Your task to perform on an android device: toggle location history Image 0: 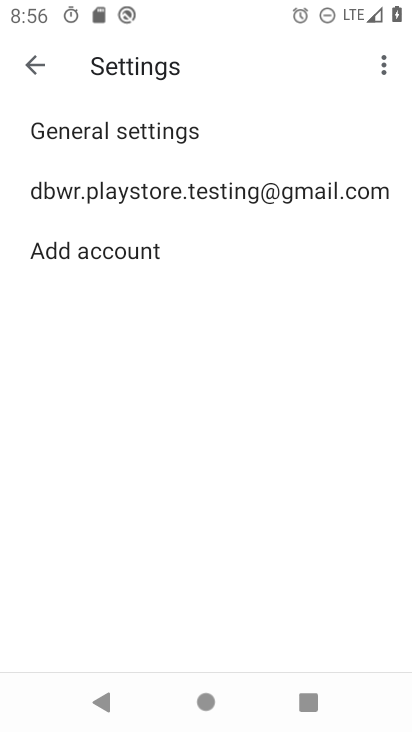
Step 0: press home button
Your task to perform on an android device: toggle location history Image 1: 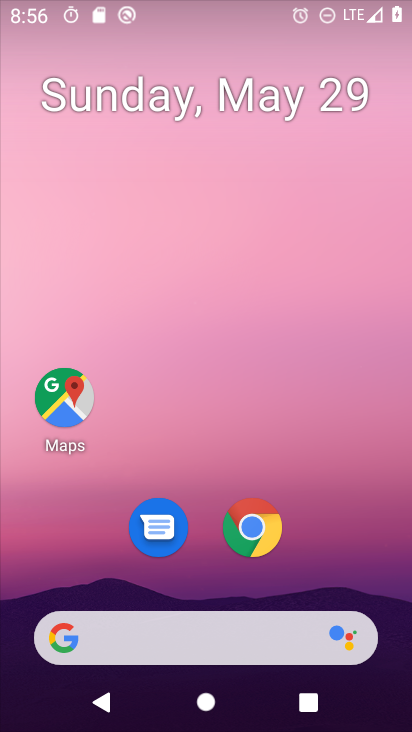
Step 1: drag from (388, 639) to (317, 2)
Your task to perform on an android device: toggle location history Image 2: 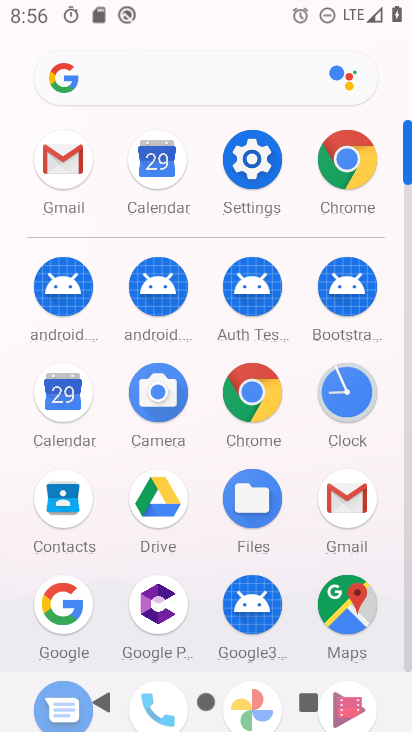
Step 2: click (237, 165)
Your task to perform on an android device: toggle location history Image 3: 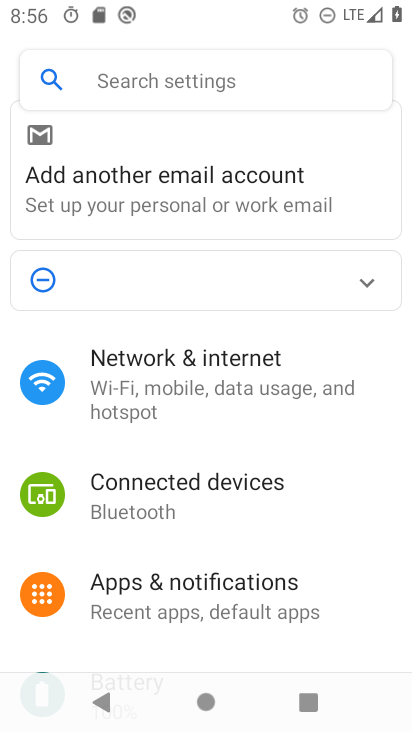
Step 3: drag from (157, 603) to (163, 189)
Your task to perform on an android device: toggle location history Image 4: 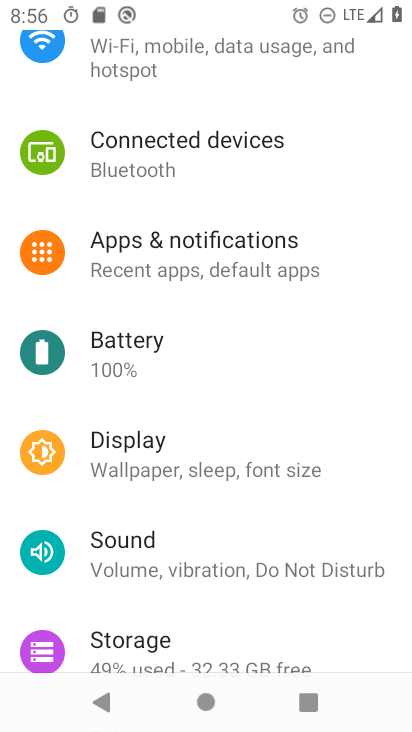
Step 4: drag from (124, 640) to (147, 297)
Your task to perform on an android device: toggle location history Image 5: 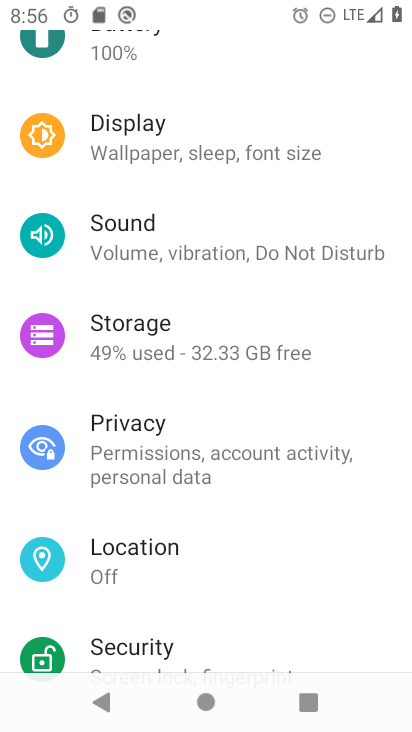
Step 5: click (166, 569)
Your task to perform on an android device: toggle location history Image 6: 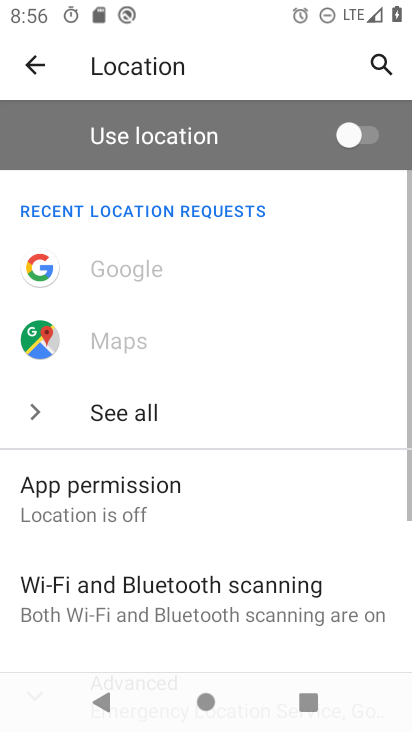
Step 6: drag from (198, 601) to (215, 246)
Your task to perform on an android device: toggle location history Image 7: 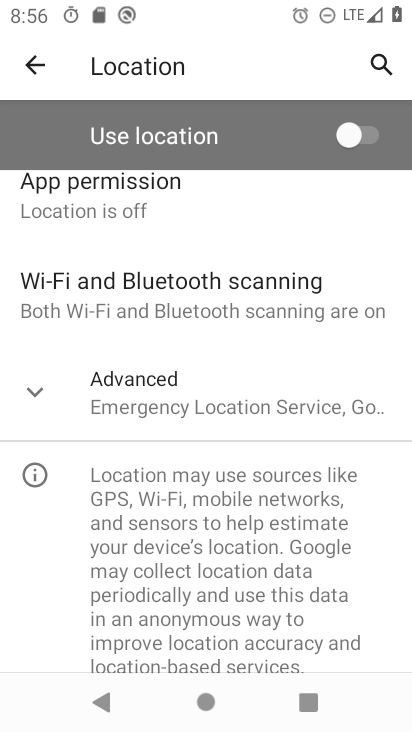
Step 7: click (127, 411)
Your task to perform on an android device: toggle location history Image 8: 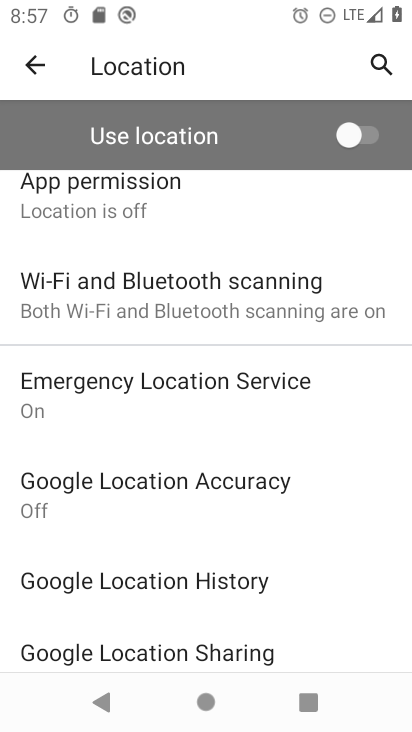
Step 8: click (183, 594)
Your task to perform on an android device: toggle location history Image 9: 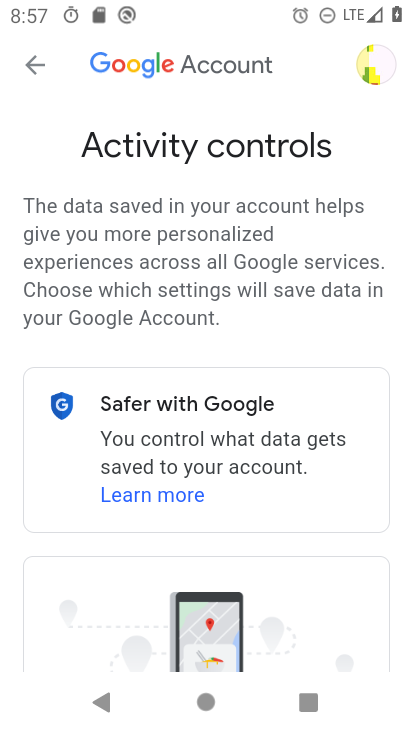
Step 9: drag from (277, 598) to (155, 97)
Your task to perform on an android device: toggle location history Image 10: 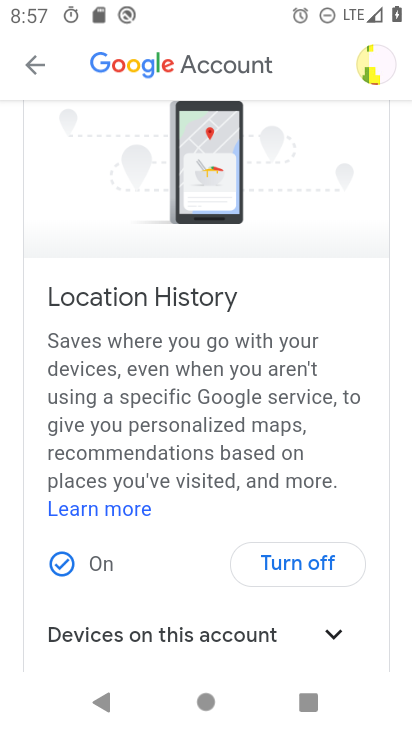
Step 10: click (293, 550)
Your task to perform on an android device: toggle location history Image 11: 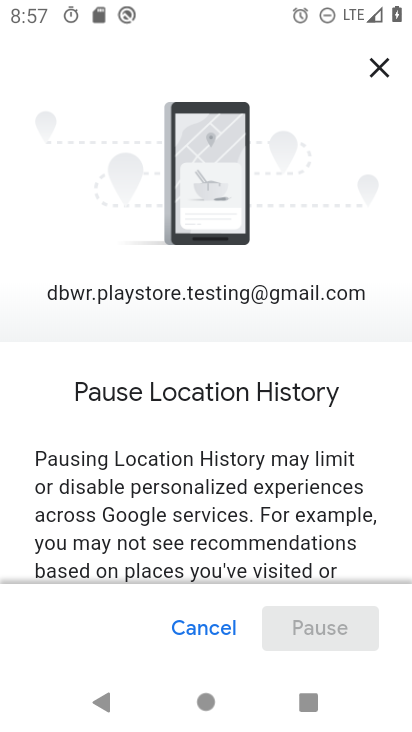
Step 11: task complete